Your task to perform on an android device: Open Youtube and go to "Your channel" Image 0: 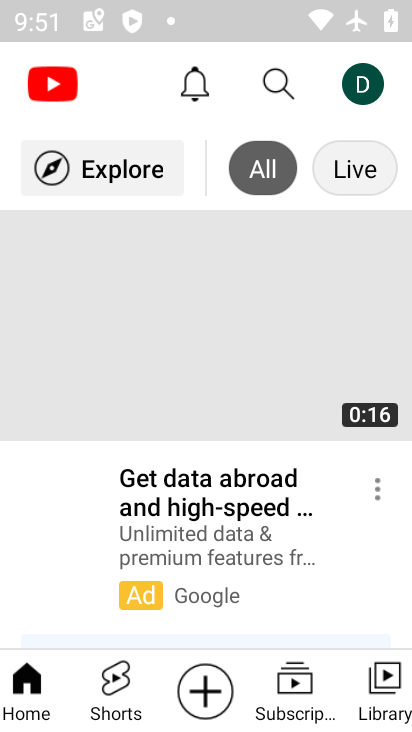
Step 0: press home button
Your task to perform on an android device: Open Youtube and go to "Your channel" Image 1: 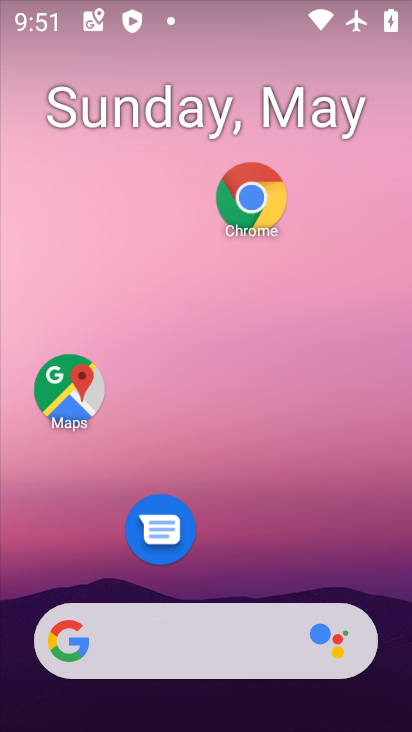
Step 1: drag from (283, 518) to (308, 91)
Your task to perform on an android device: Open Youtube and go to "Your channel" Image 2: 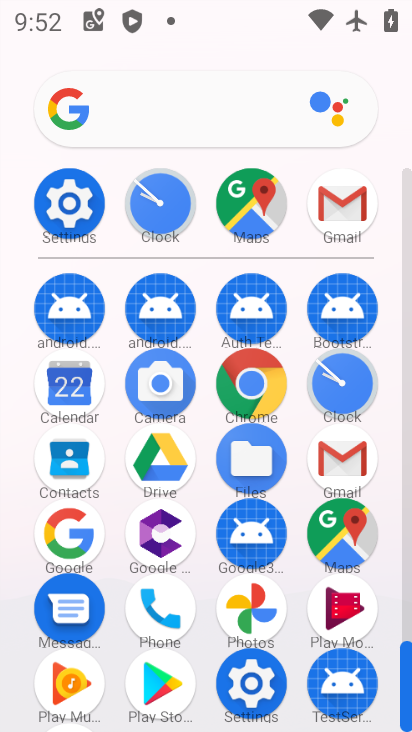
Step 2: drag from (309, 584) to (330, 240)
Your task to perform on an android device: Open Youtube and go to "Your channel" Image 3: 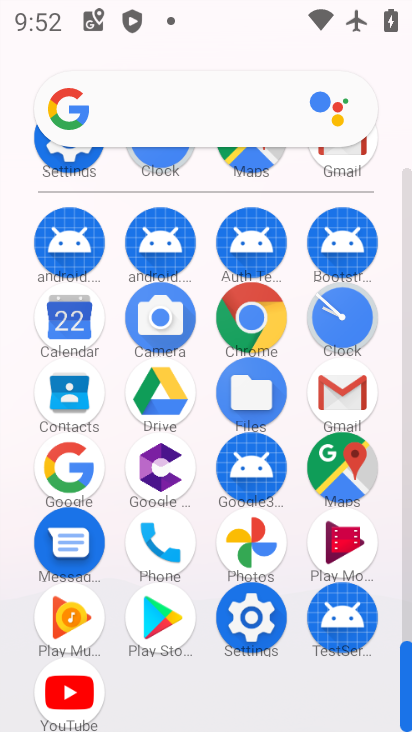
Step 3: click (76, 682)
Your task to perform on an android device: Open Youtube and go to "Your channel" Image 4: 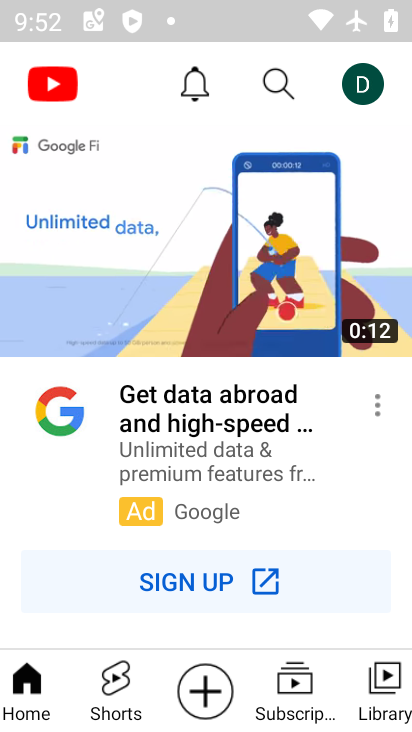
Step 4: click (365, 86)
Your task to perform on an android device: Open Youtube and go to "Your channel" Image 5: 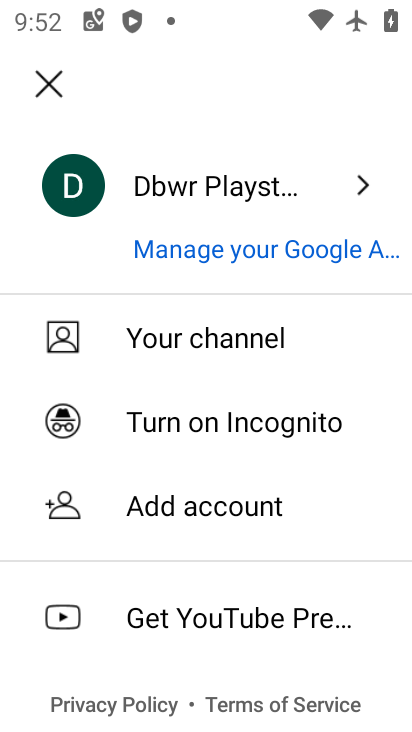
Step 5: click (141, 348)
Your task to perform on an android device: Open Youtube and go to "Your channel" Image 6: 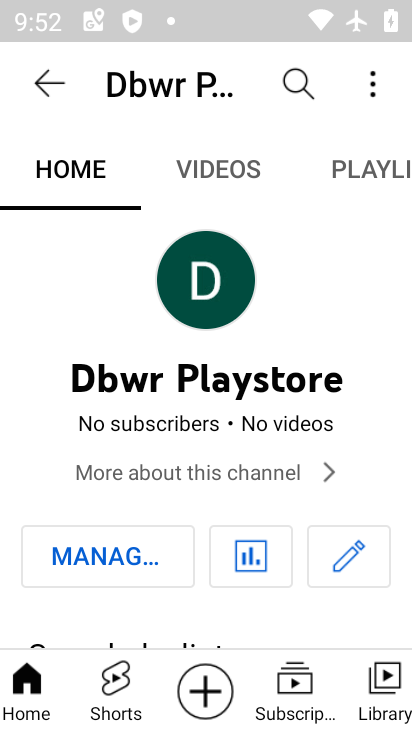
Step 6: task complete